Your task to perform on an android device: check android version Image 0: 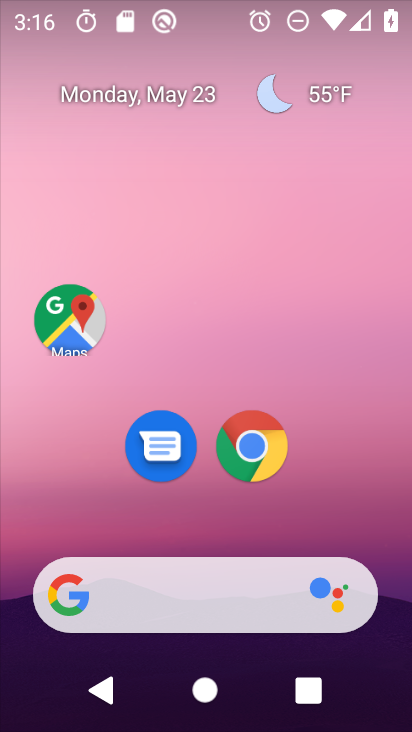
Step 0: drag from (213, 520) to (141, 116)
Your task to perform on an android device: check android version Image 1: 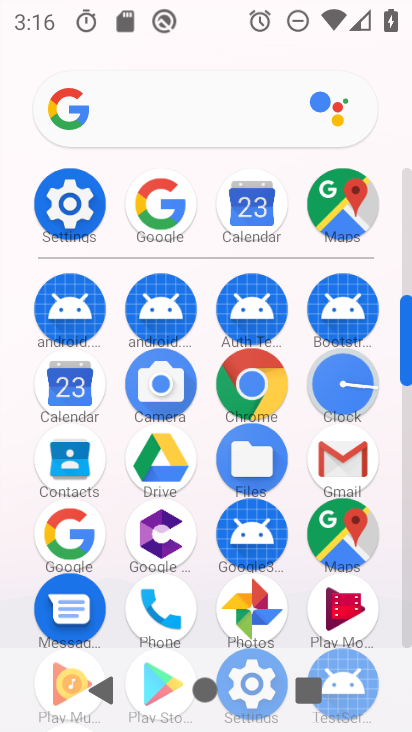
Step 1: click (91, 216)
Your task to perform on an android device: check android version Image 2: 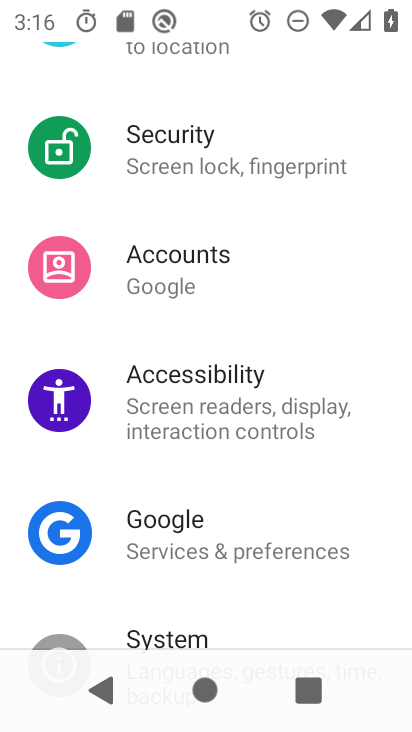
Step 2: drag from (231, 542) to (210, 128)
Your task to perform on an android device: check android version Image 3: 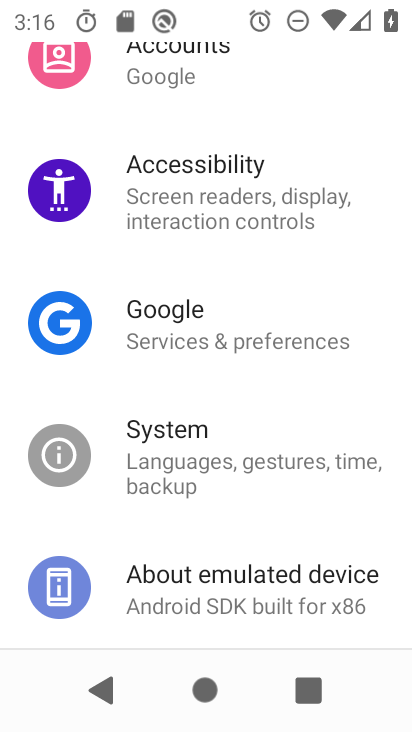
Step 3: click (223, 592)
Your task to perform on an android device: check android version Image 4: 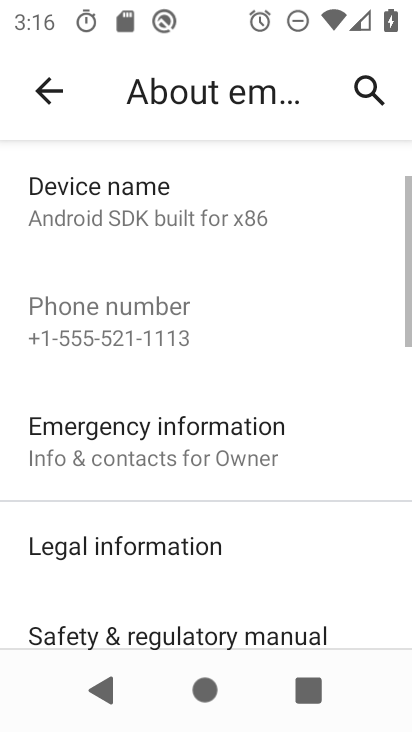
Step 4: drag from (179, 549) to (137, 251)
Your task to perform on an android device: check android version Image 5: 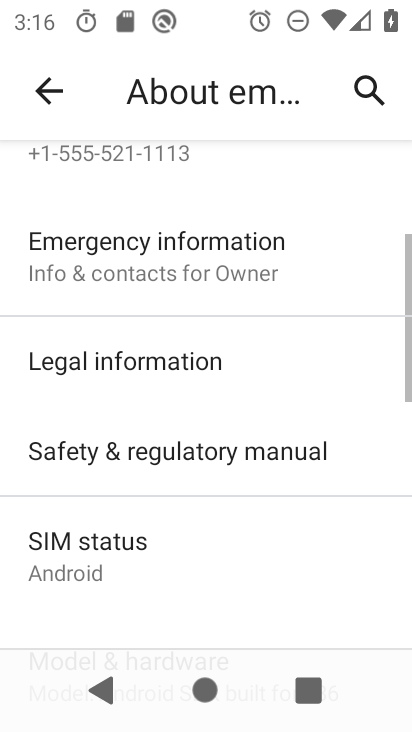
Step 5: drag from (154, 587) to (124, 367)
Your task to perform on an android device: check android version Image 6: 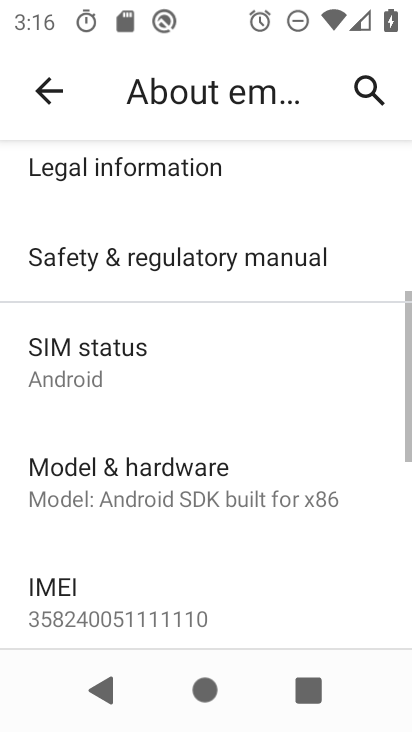
Step 6: drag from (168, 573) to (168, 413)
Your task to perform on an android device: check android version Image 7: 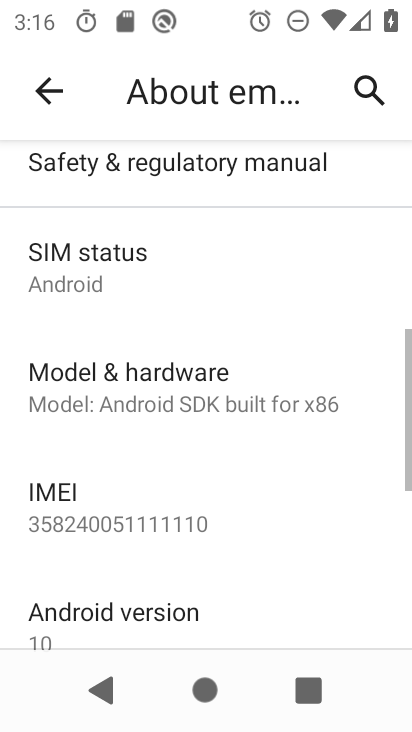
Step 7: drag from (172, 550) to (154, 394)
Your task to perform on an android device: check android version Image 8: 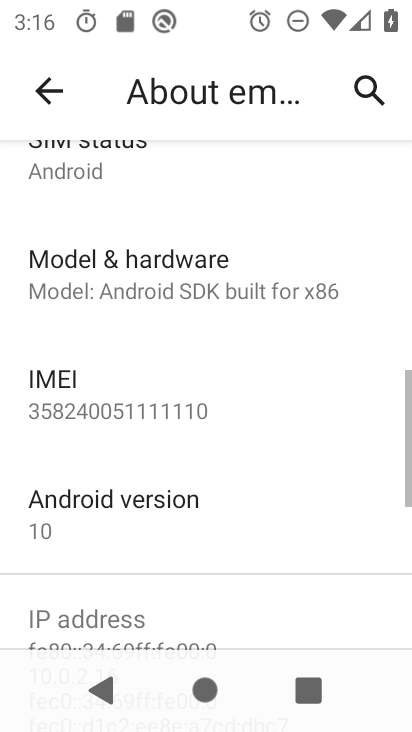
Step 8: click (139, 532)
Your task to perform on an android device: check android version Image 9: 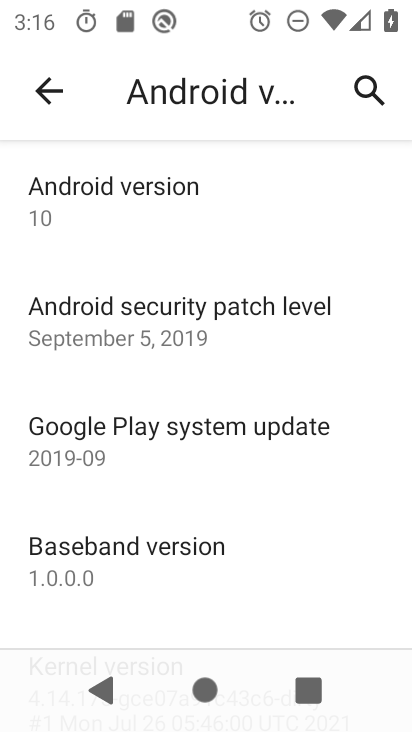
Step 9: click (124, 217)
Your task to perform on an android device: check android version Image 10: 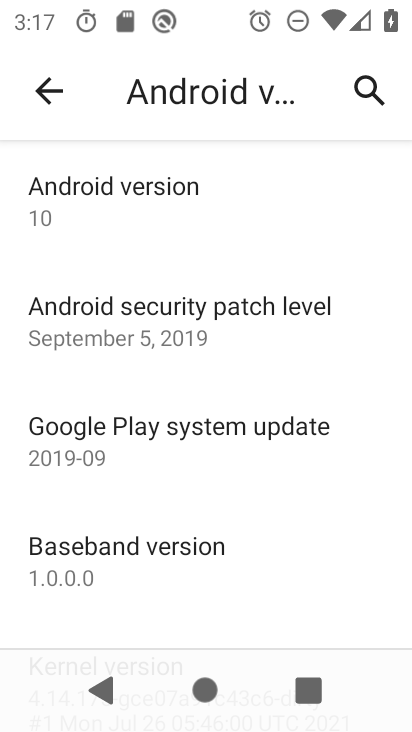
Step 10: task complete